Your task to perform on an android device: Open the web browser Image 0: 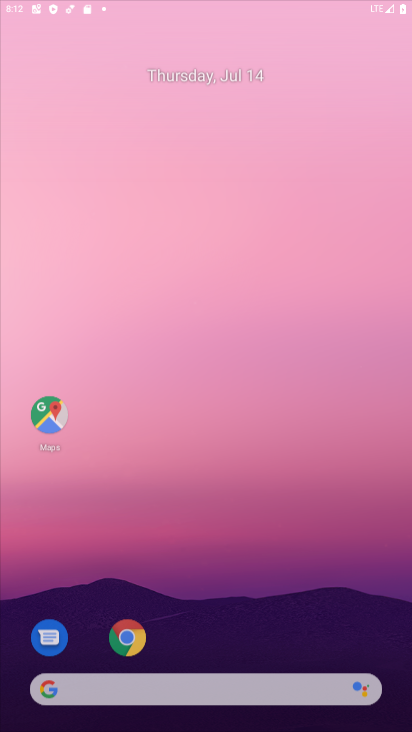
Step 0: drag from (325, 132) to (341, 175)
Your task to perform on an android device: Open the web browser Image 1: 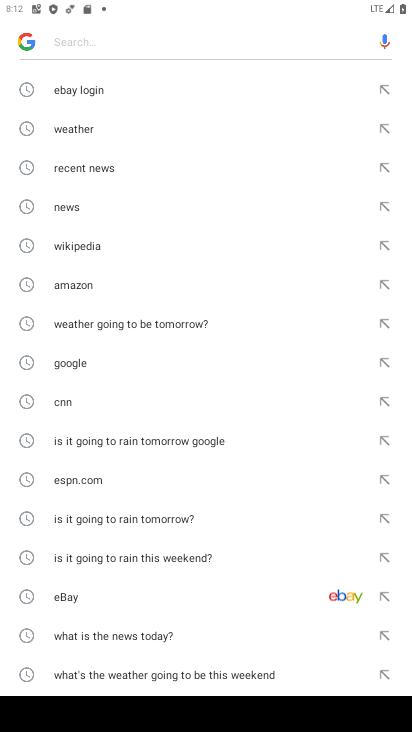
Step 1: press home button
Your task to perform on an android device: Open the web browser Image 2: 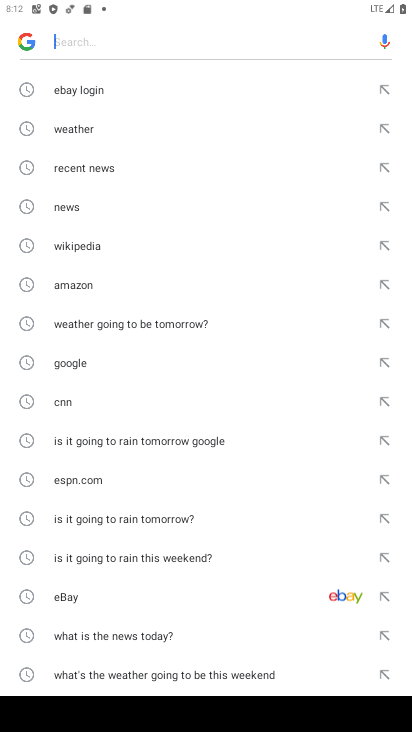
Step 2: press home button
Your task to perform on an android device: Open the web browser Image 3: 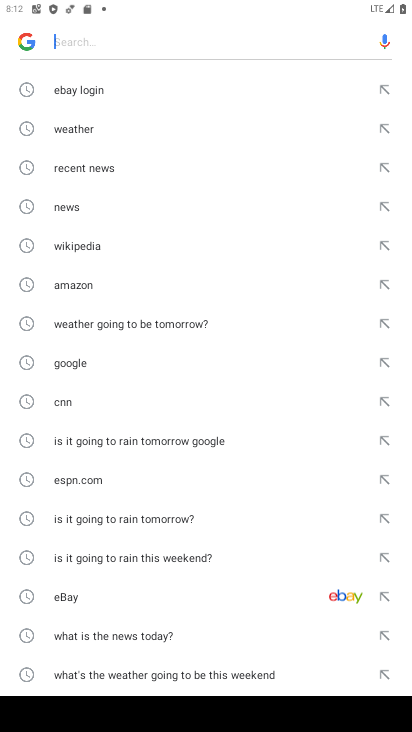
Step 3: click (228, 153)
Your task to perform on an android device: Open the web browser Image 4: 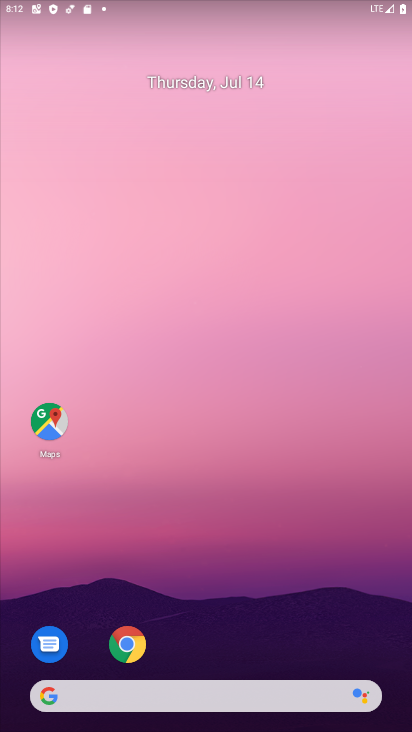
Step 4: drag from (185, 589) to (259, 161)
Your task to perform on an android device: Open the web browser Image 5: 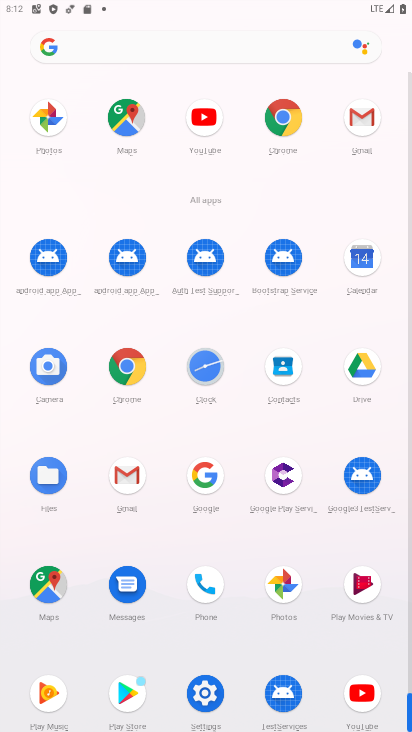
Step 5: click (174, 49)
Your task to perform on an android device: Open the web browser Image 6: 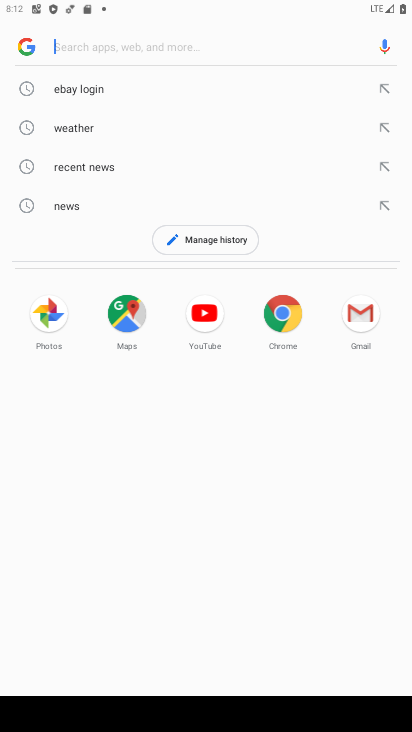
Step 6: drag from (174, 507) to (188, 185)
Your task to perform on an android device: Open the web browser Image 7: 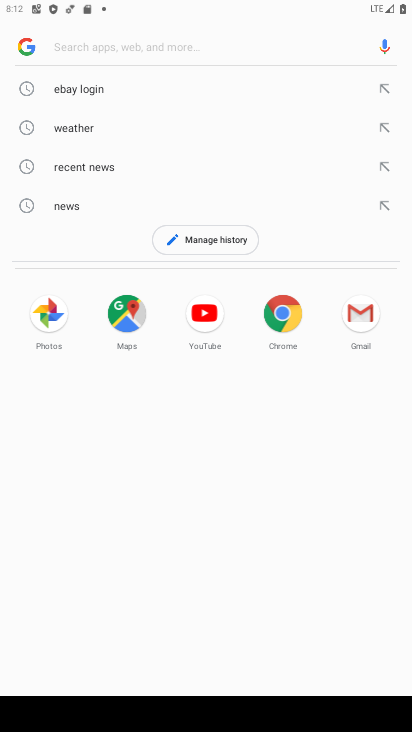
Step 7: drag from (238, 622) to (259, 468)
Your task to perform on an android device: Open the web browser Image 8: 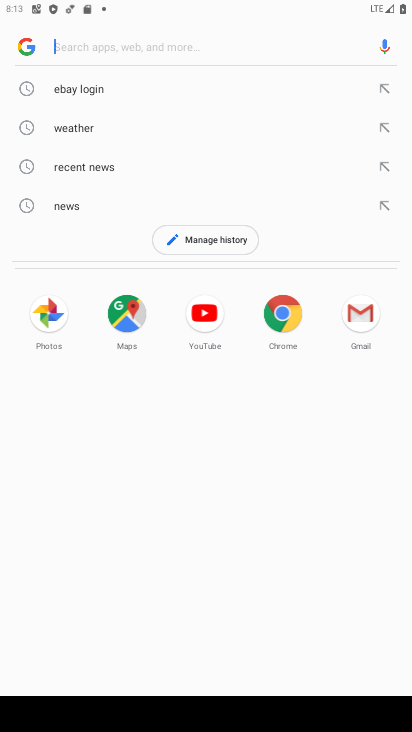
Step 8: type "web browser"
Your task to perform on an android device: Open the web browser Image 9: 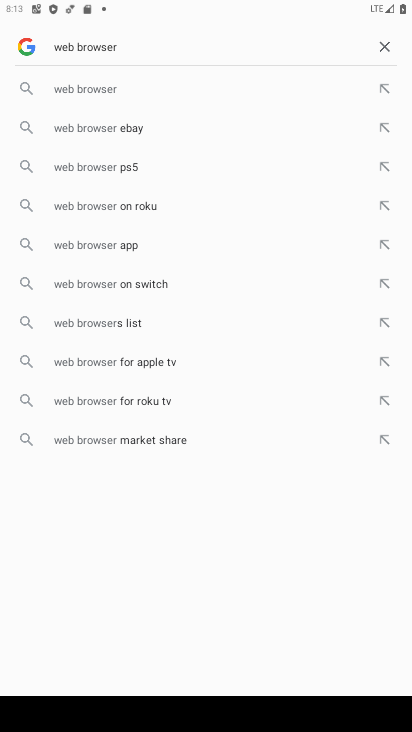
Step 9: click (117, 88)
Your task to perform on an android device: Open the web browser Image 10: 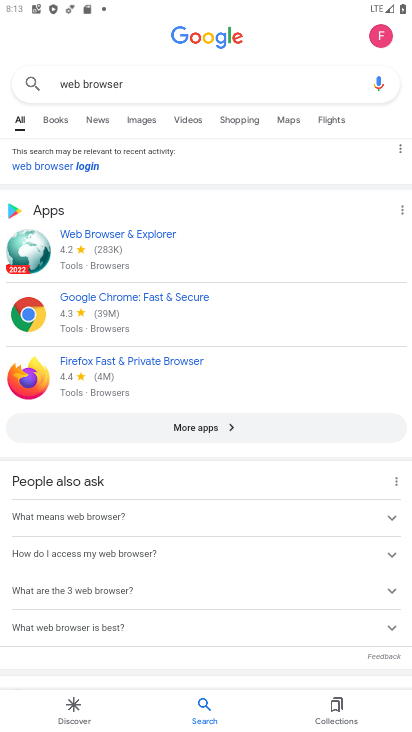
Step 10: task complete